Your task to perform on an android device: Open Google Maps Image 0: 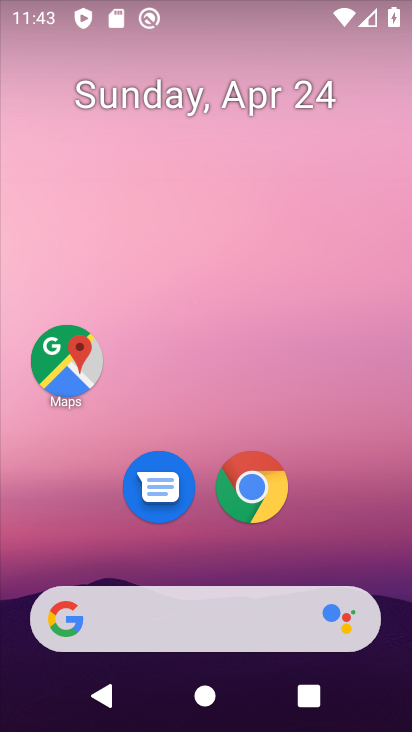
Step 0: click (73, 371)
Your task to perform on an android device: Open Google Maps Image 1: 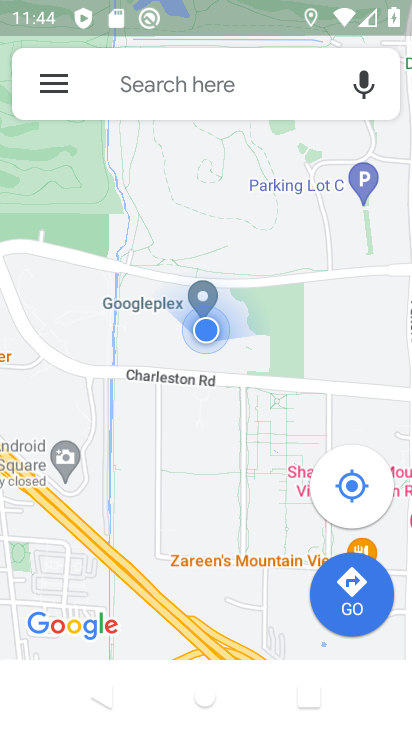
Step 1: task complete